Your task to perform on an android device: What is the recent news? Image 0: 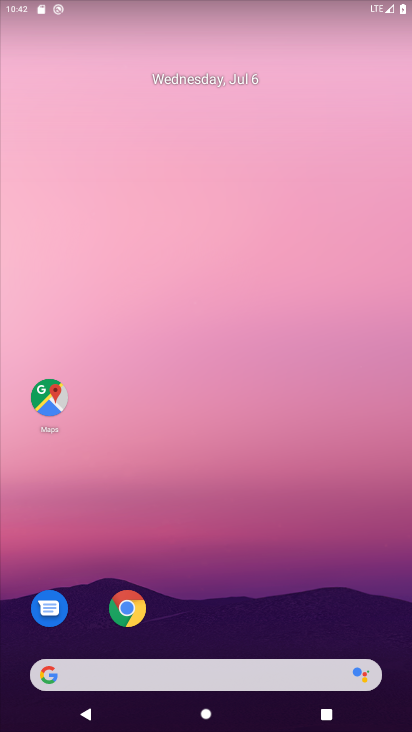
Step 0: click (129, 675)
Your task to perform on an android device: What is the recent news? Image 1: 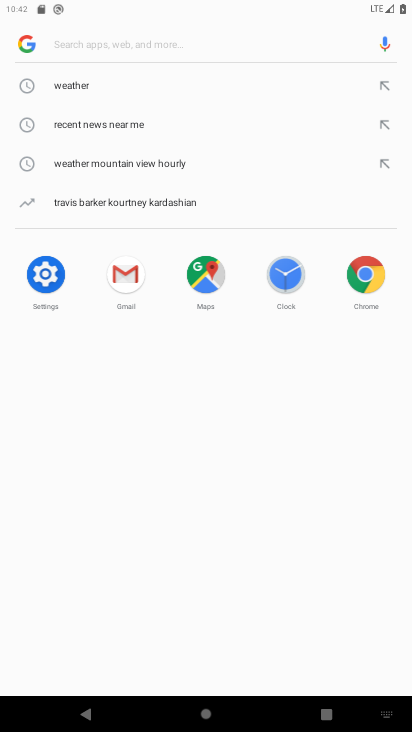
Step 1: type ""
Your task to perform on an android device: What is the recent news? Image 2: 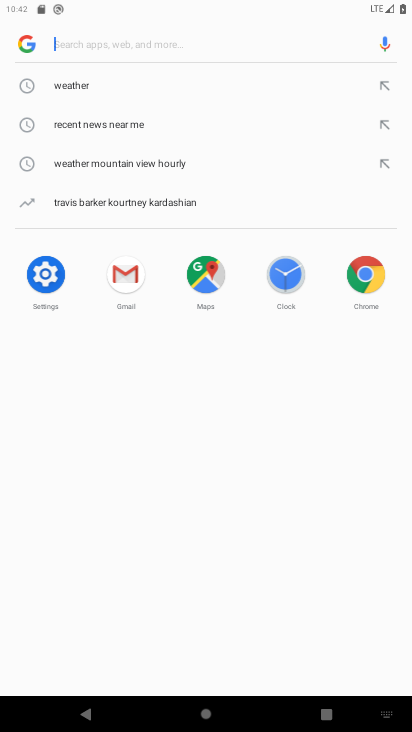
Step 2: type "recent news"
Your task to perform on an android device: What is the recent news? Image 3: 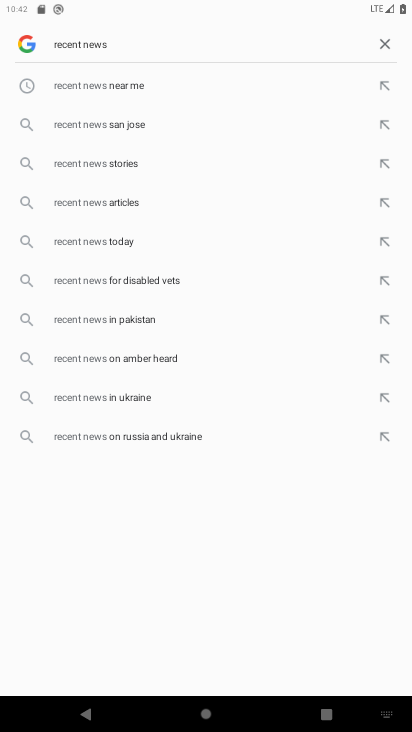
Step 3: click (115, 79)
Your task to perform on an android device: What is the recent news? Image 4: 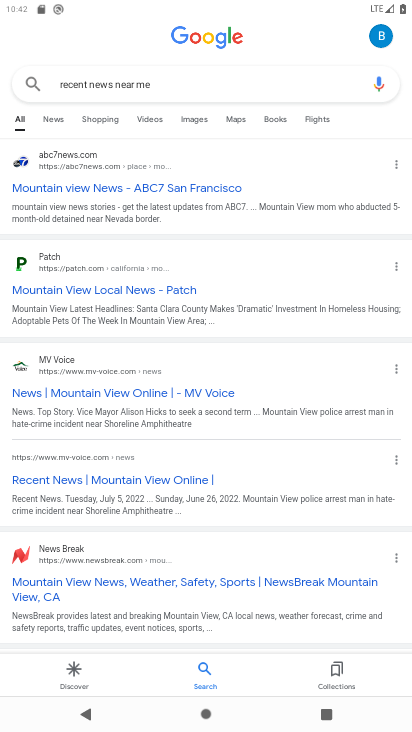
Step 4: click (130, 193)
Your task to perform on an android device: What is the recent news? Image 5: 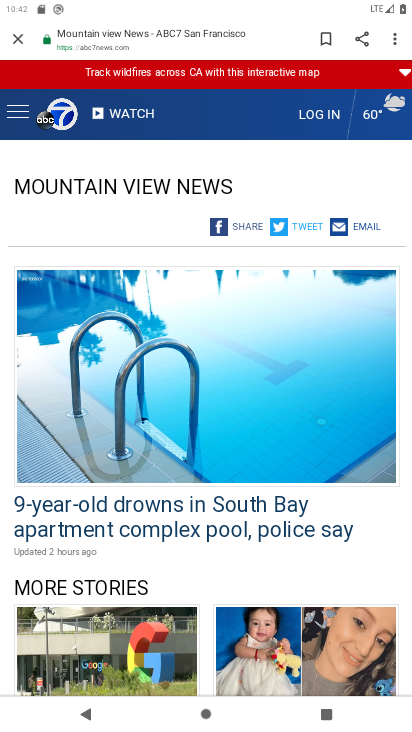
Step 5: task complete